Your task to perform on an android device: change the clock display to show seconds Image 0: 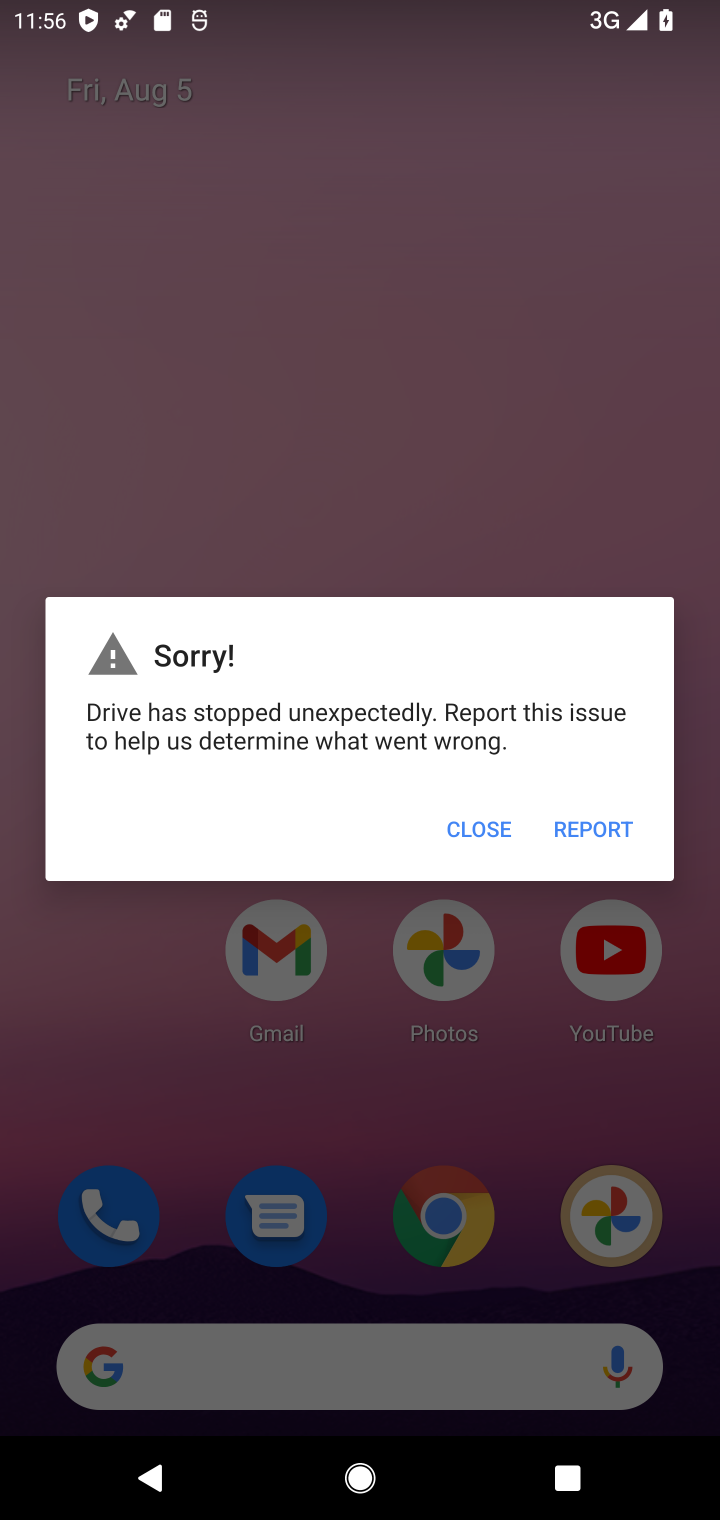
Step 0: press home button
Your task to perform on an android device: change the clock display to show seconds Image 1: 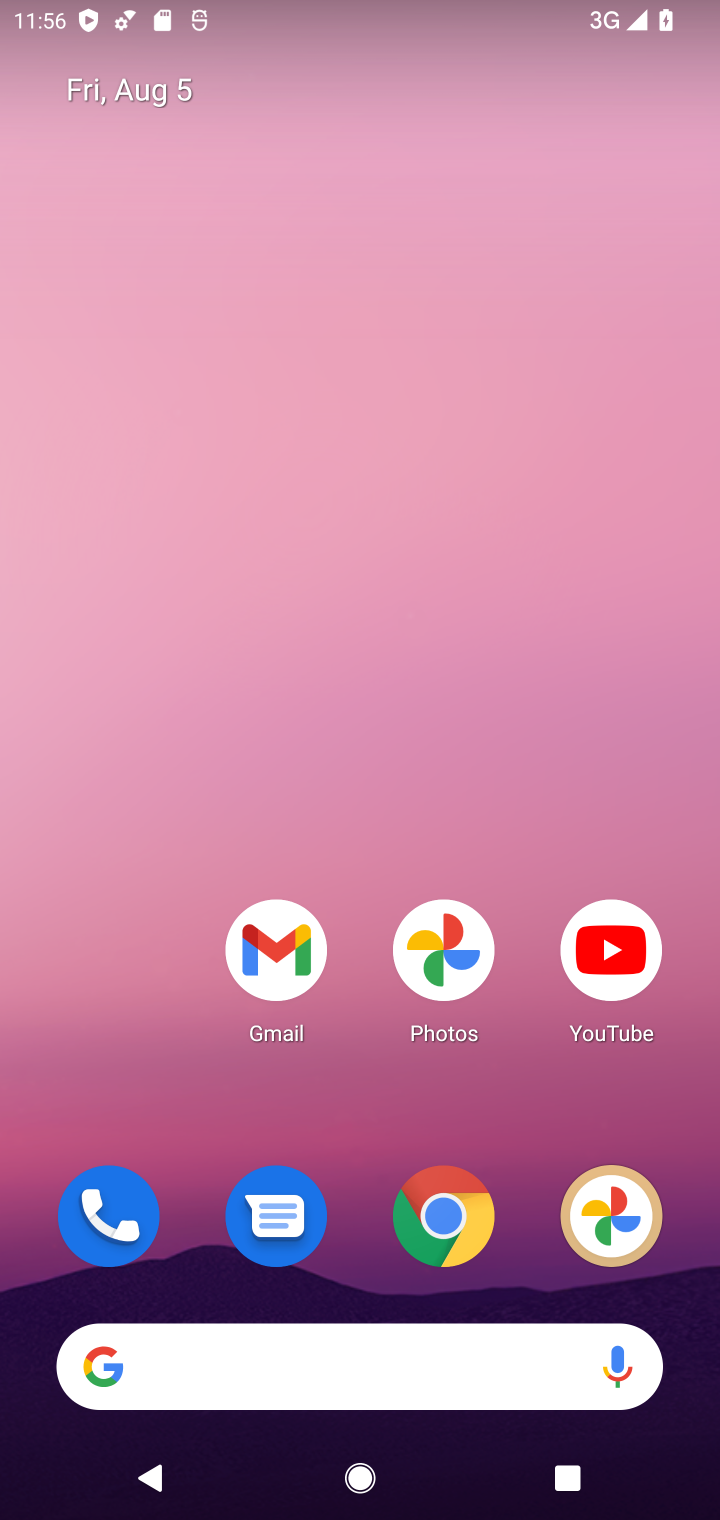
Step 1: drag from (540, 1354) to (596, 28)
Your task to perform on an android device: change the clock display to show seconds Image 2: 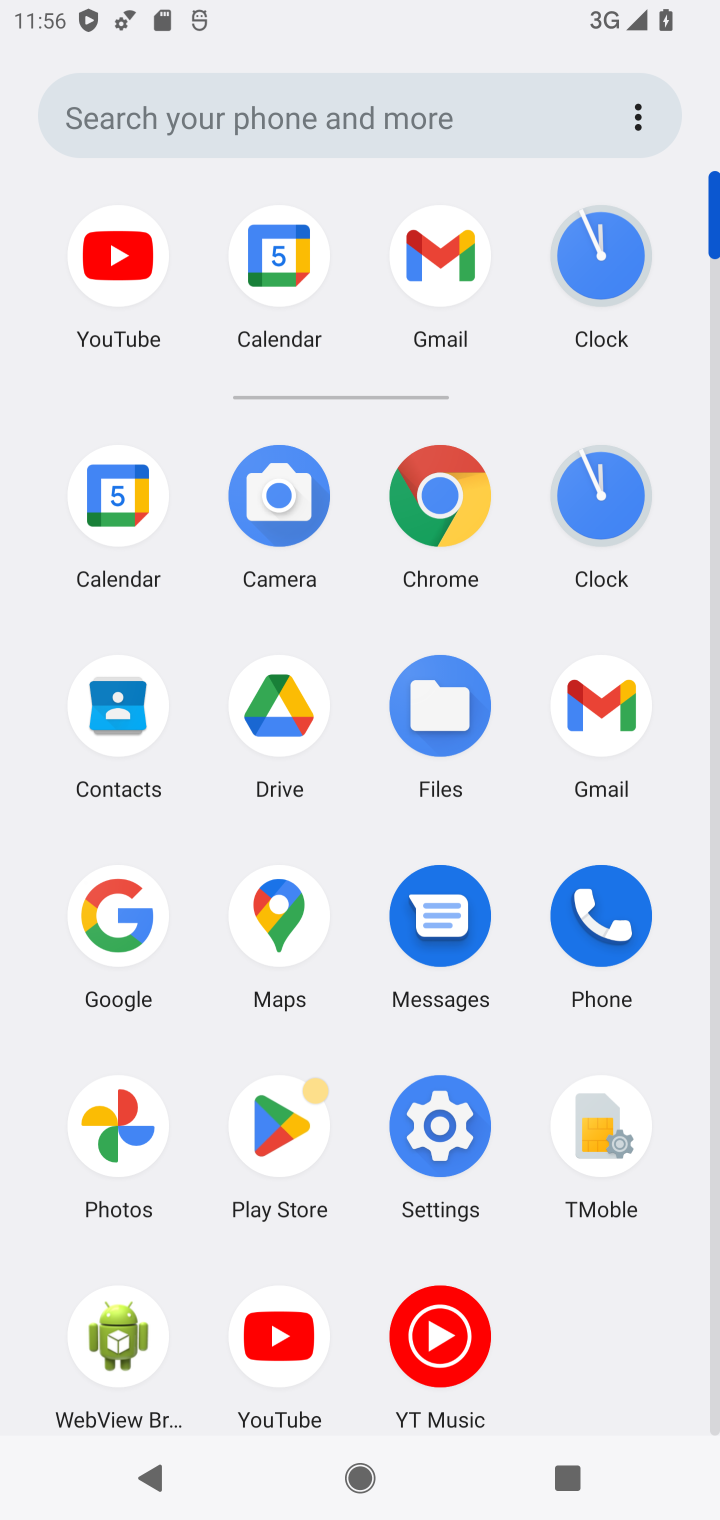
Step 2: click (606, 514)
Your task to perform on an android device: change the clock display to show seconds Image 3: 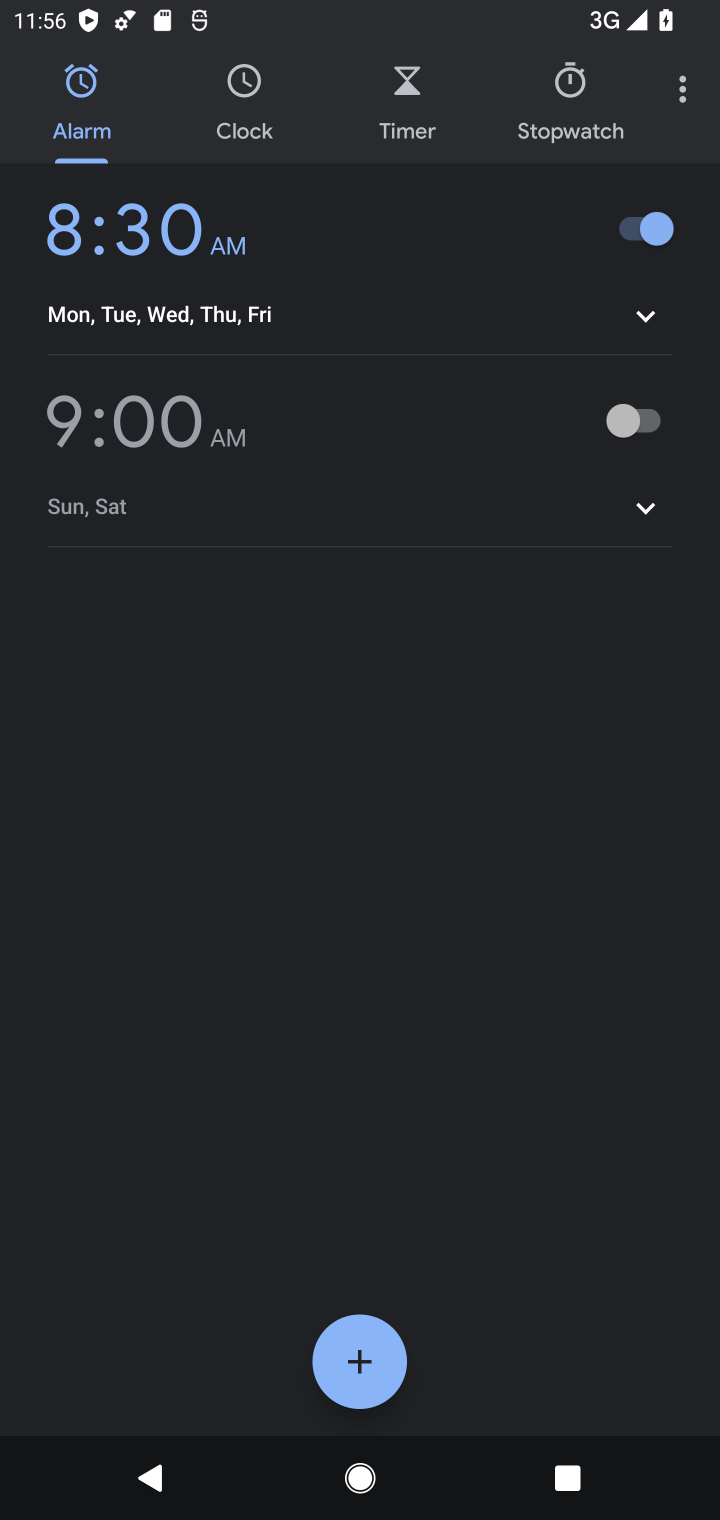
Step 3: click (688, 94)
Your task to perform on an android device: change the clock display to show seconds Image 4: 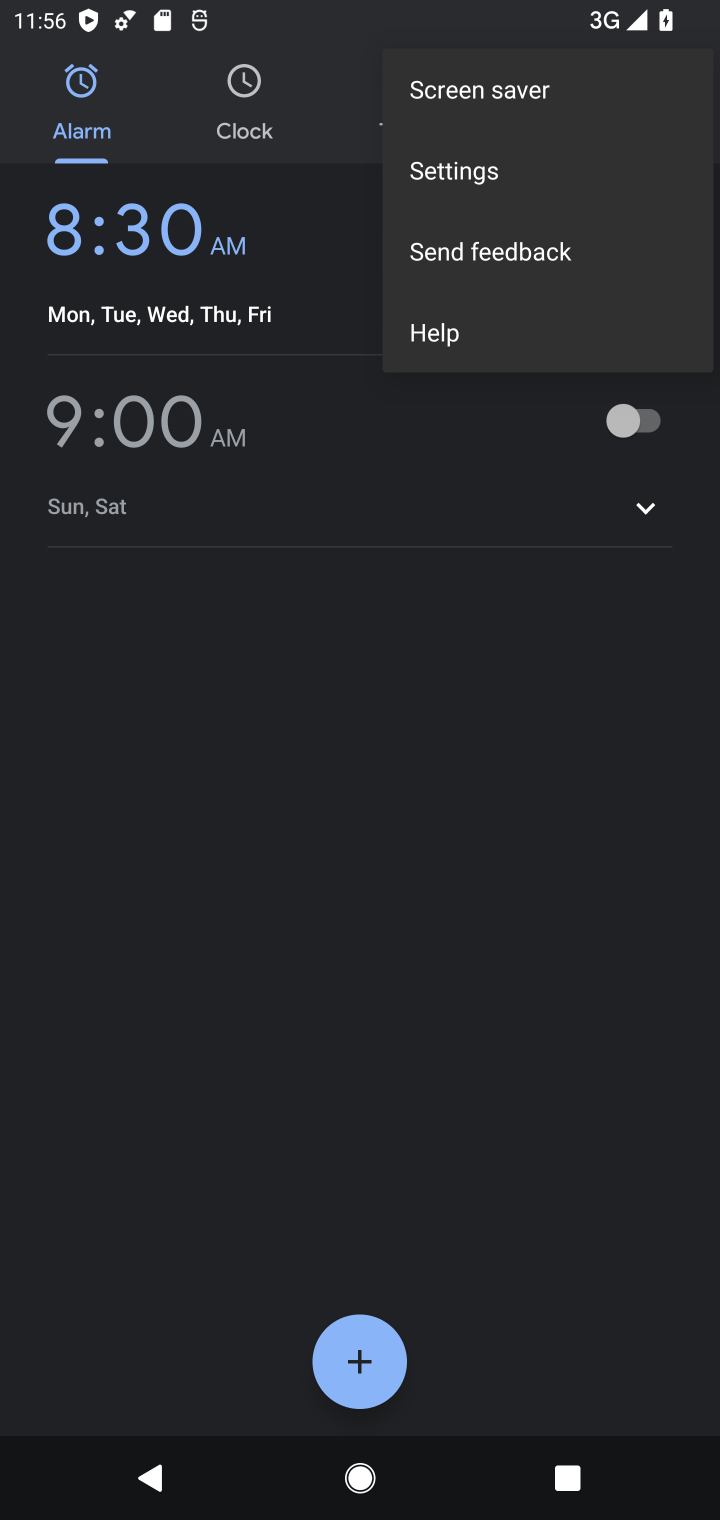
Step 4: click (472, 165)
Your task to perform on an android device: change the clock display to show seconds Image 5: 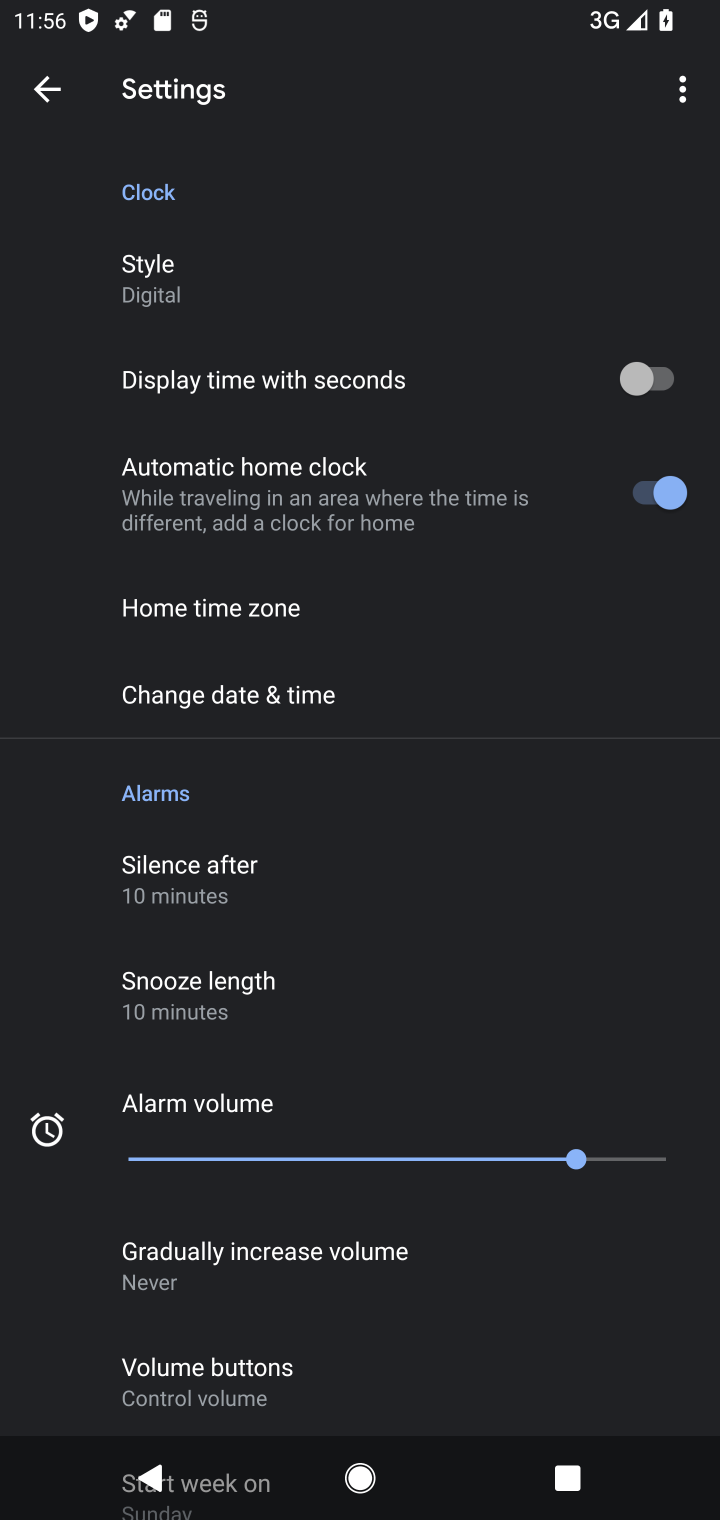
Step 5: click (657, 378)
Your task to perform on an android device: change the clock display to show seconds Image 6: 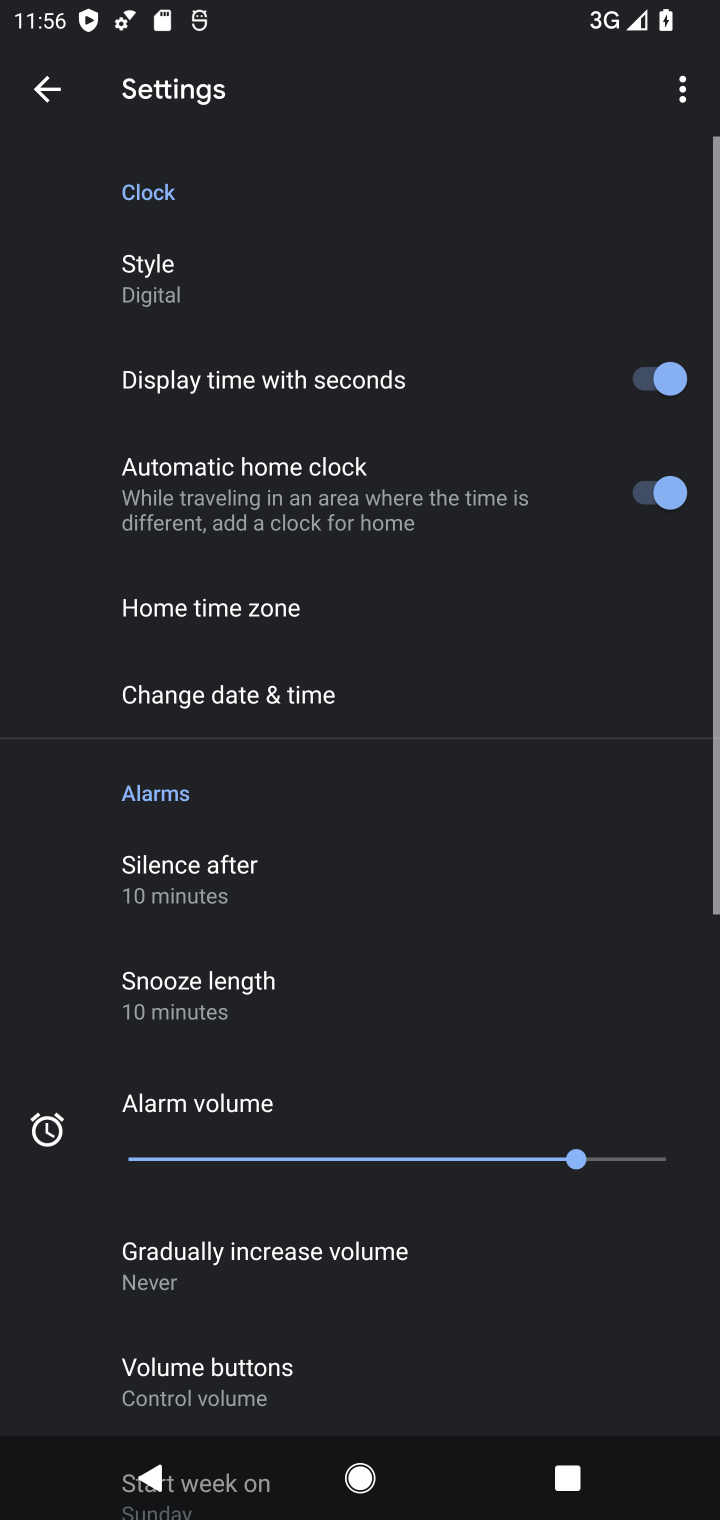
Step 6: task complete